Your task to perform on an android device: install app "Google News" Image 0: 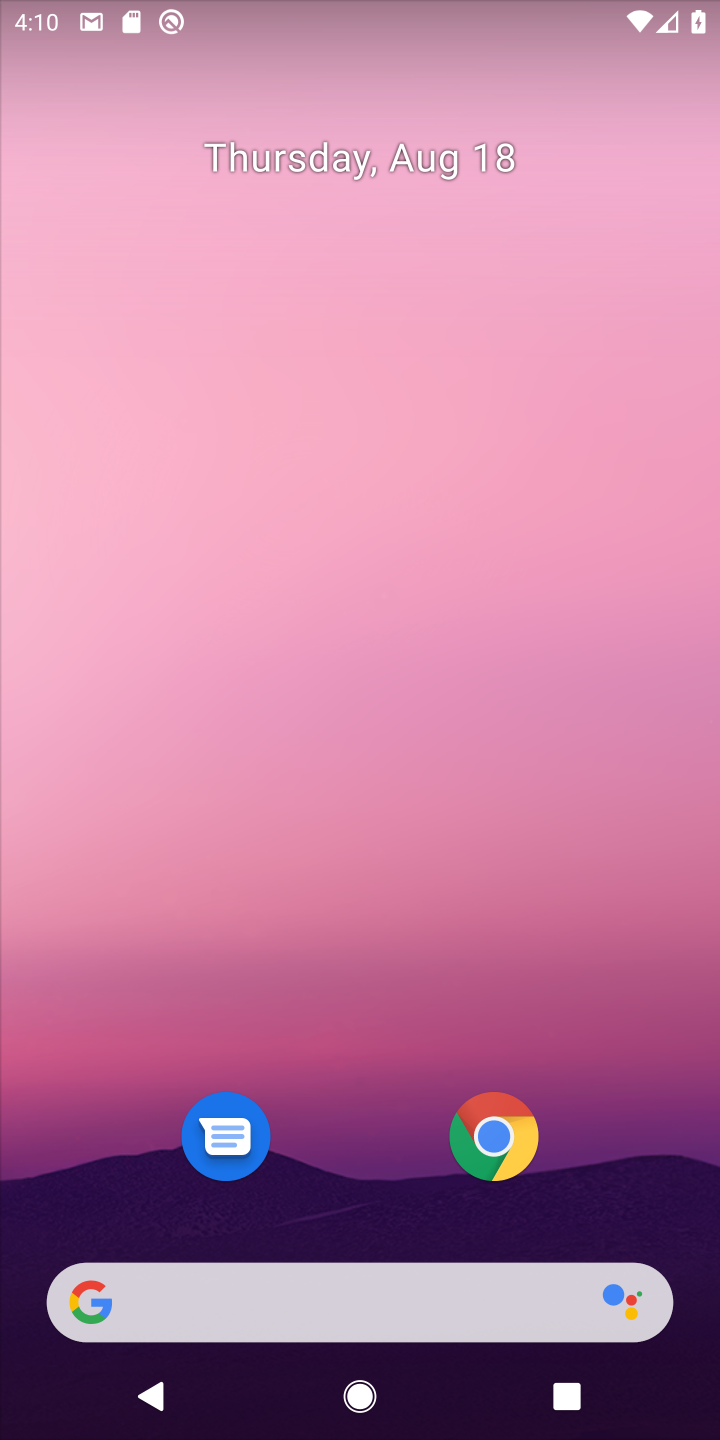
Step 0: press home button
Your task to perform on an android device: install app "Google News" Image 1: 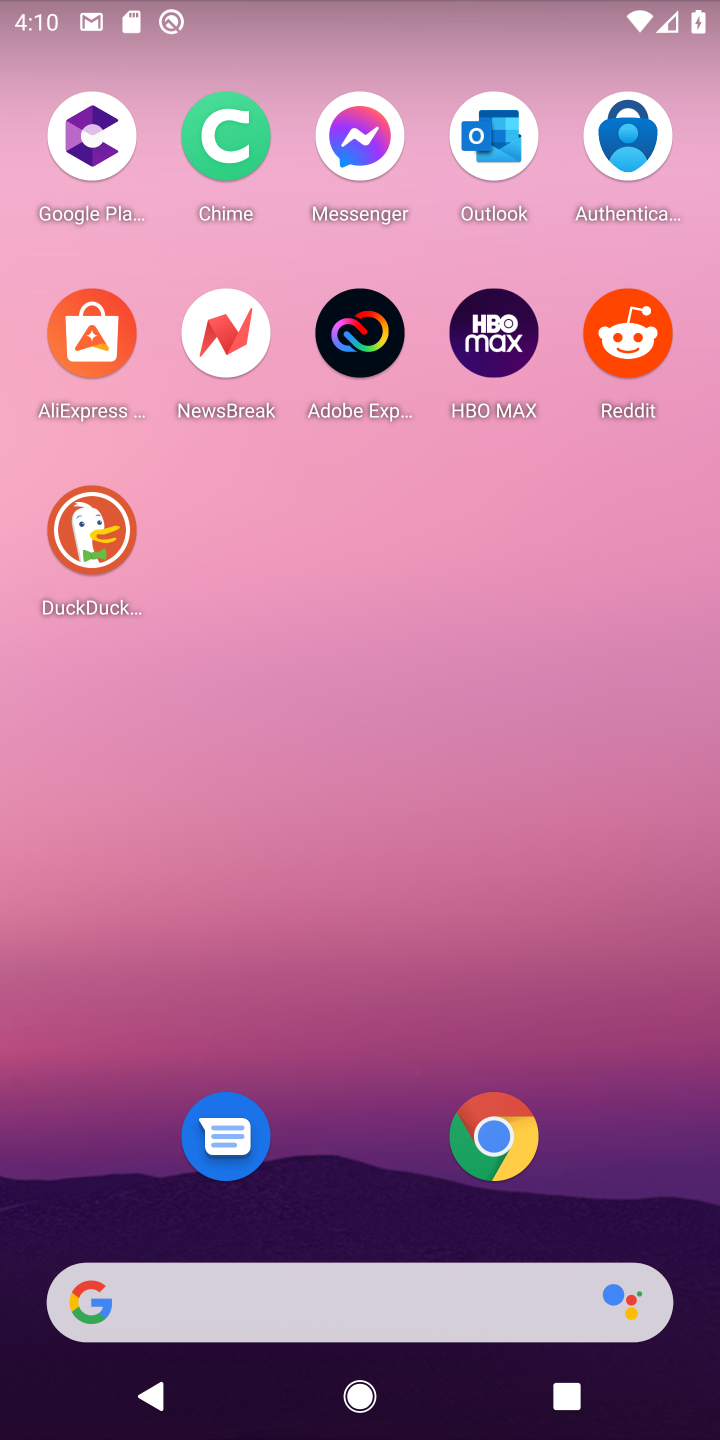
Step 1: drag from (373, 482) to (706, 45)
Your task to perform on an android device: install app "Google News" Image 2: 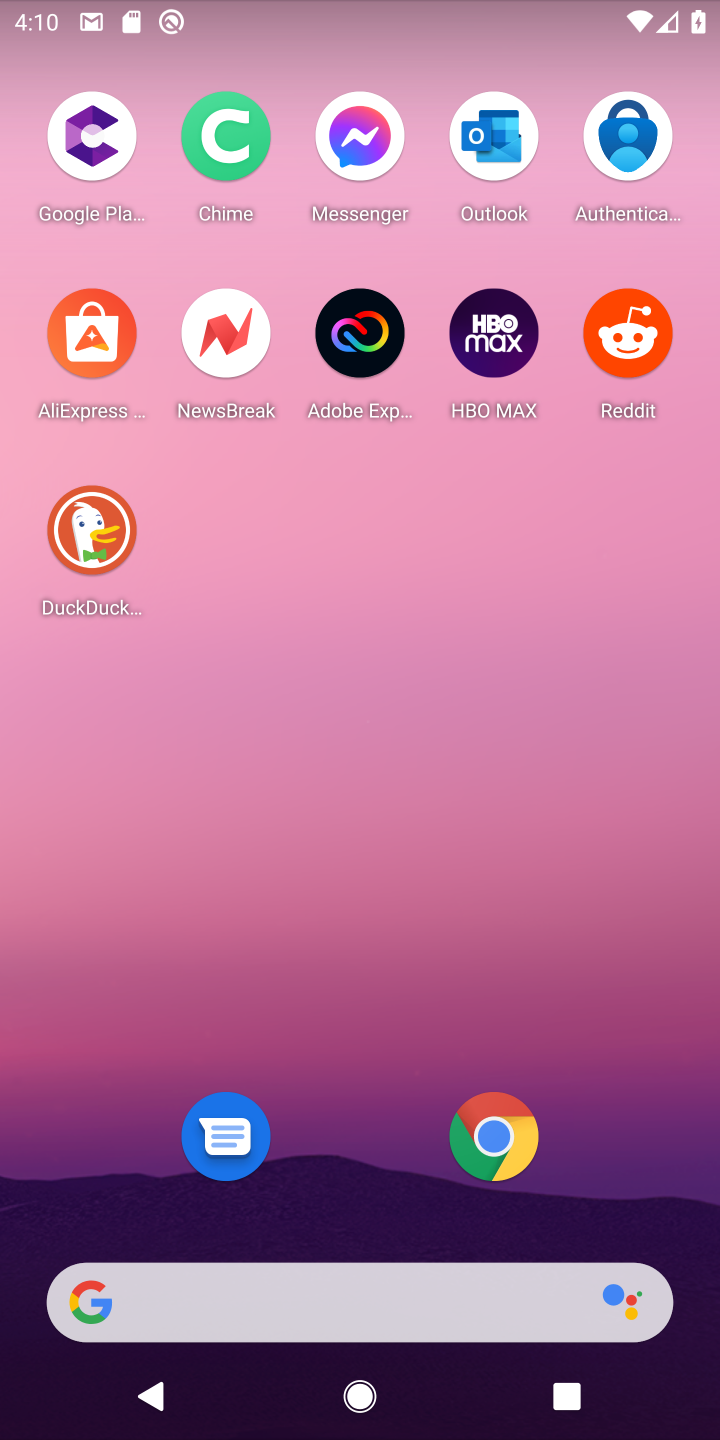
Step 2: drag from (354, 1170) to (424, 11)
Your task to perform on an android device: install app "Google News" Image 3: 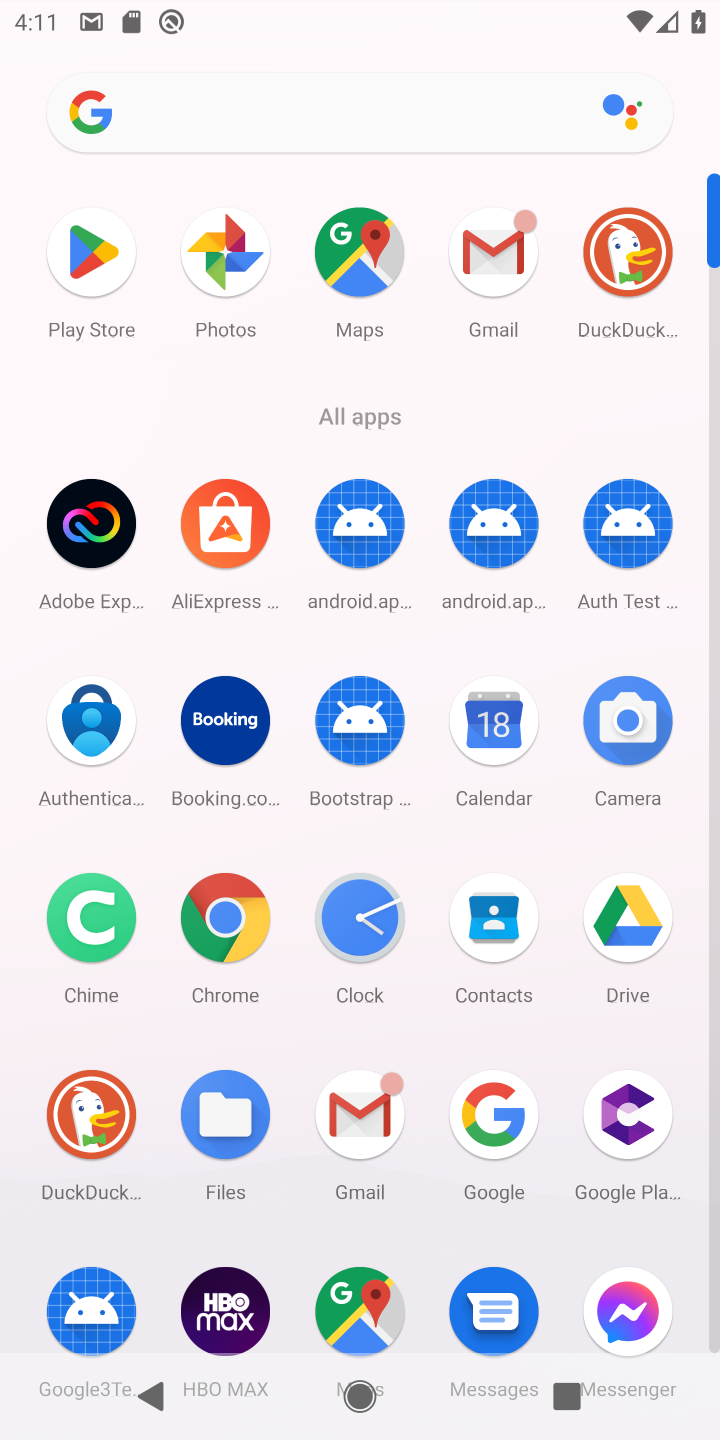
Step 3: drag from (292, 1176) to (346, 853)
Your task to perform on an android device: install app "Google News" Image 4: 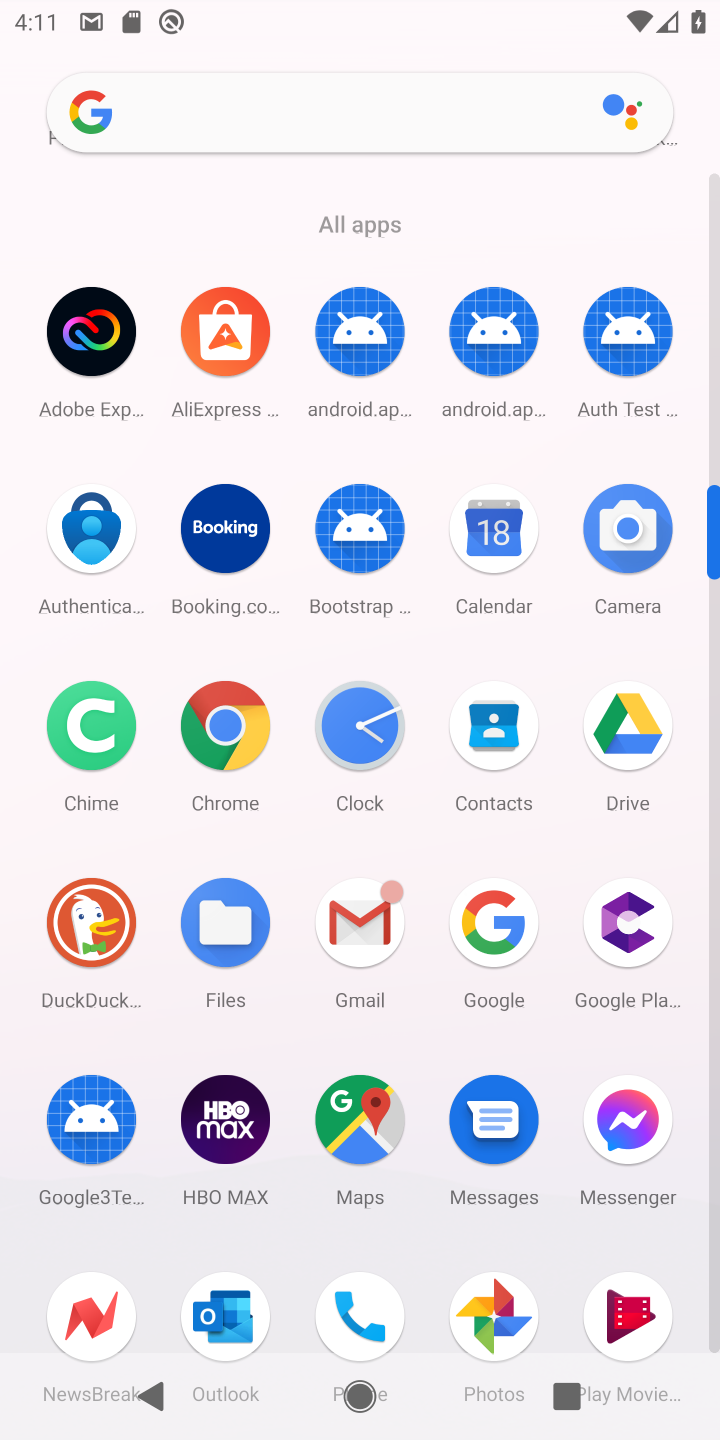
Step 4: drag from (303, 1082) to (376, 430)
Your task to perform on an android device: install app "Google News" Image 5: 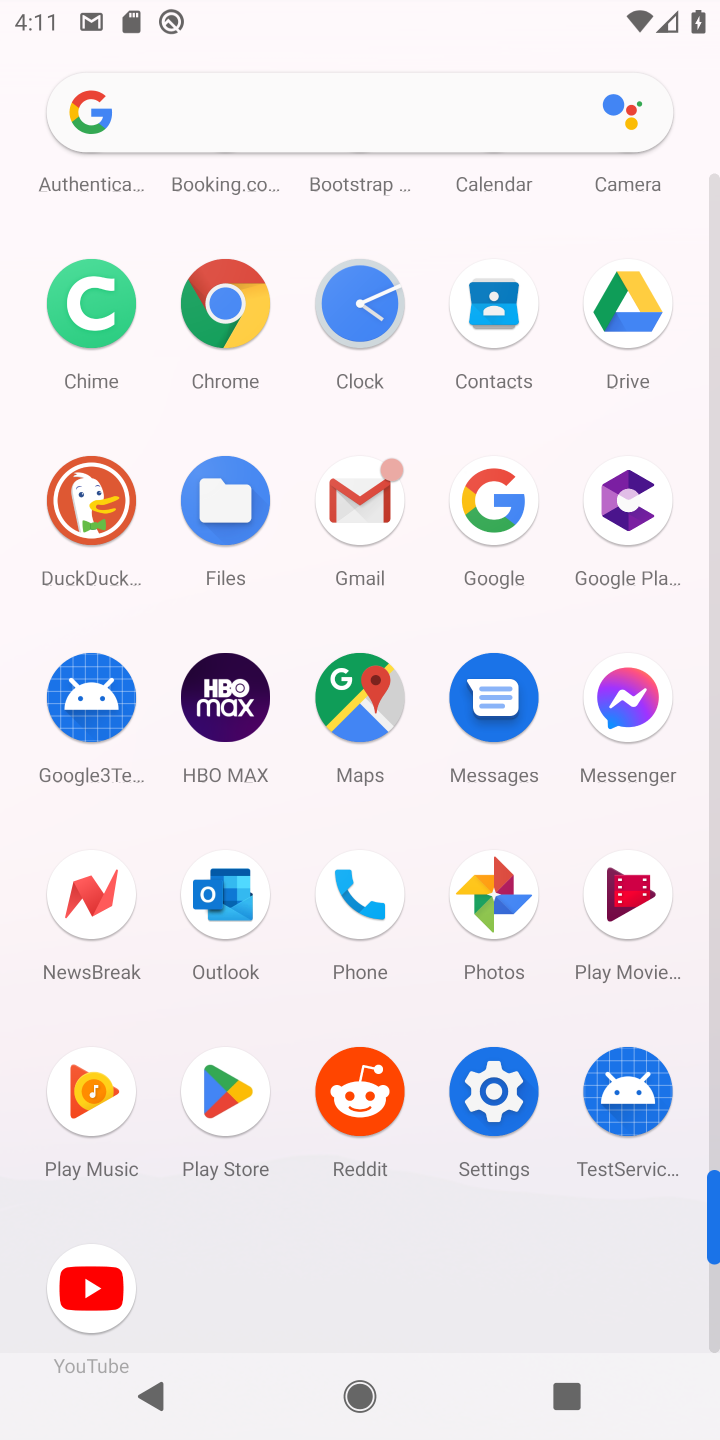
Step 5: click (220, 1100)
Your task to perform on an android device: install app "Google News" Image 6: 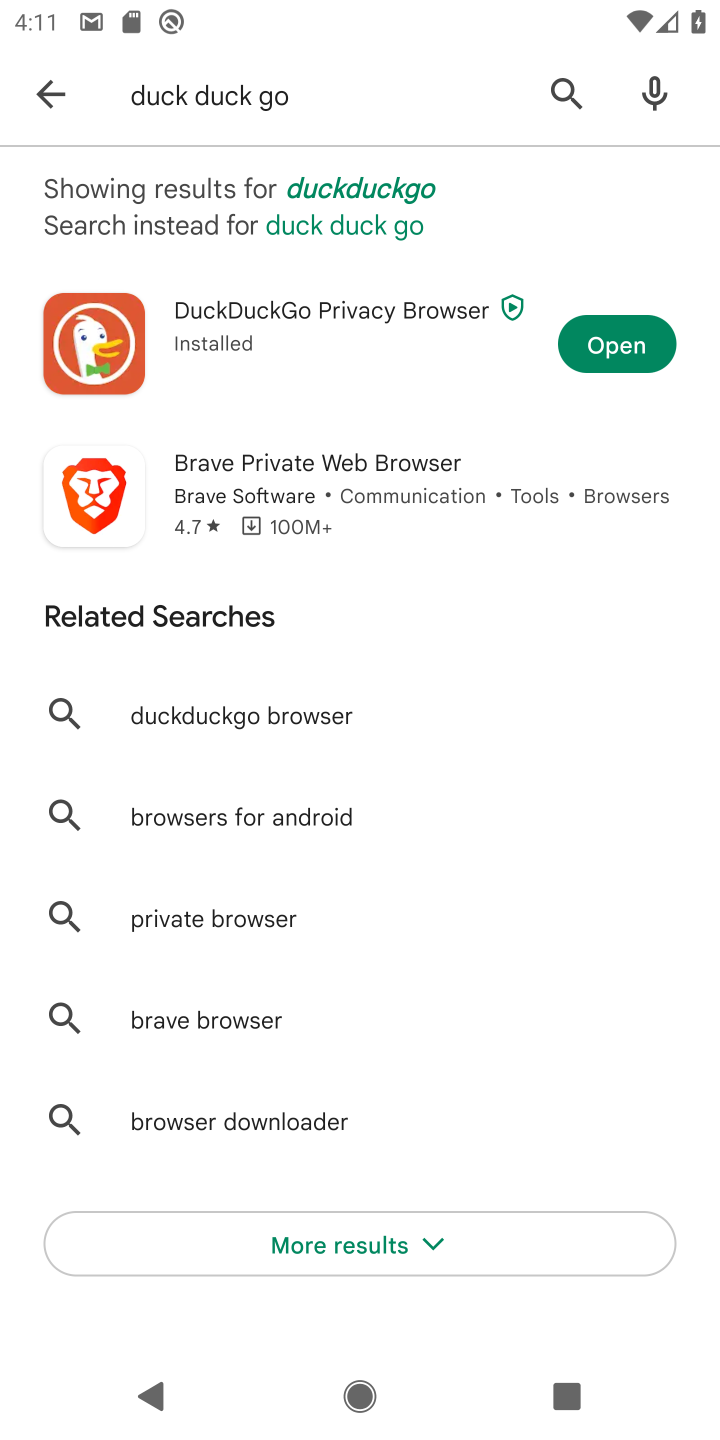
Step 6: click (206, 103)
Your task to perform on an android device: install app "Google News" Image 7: 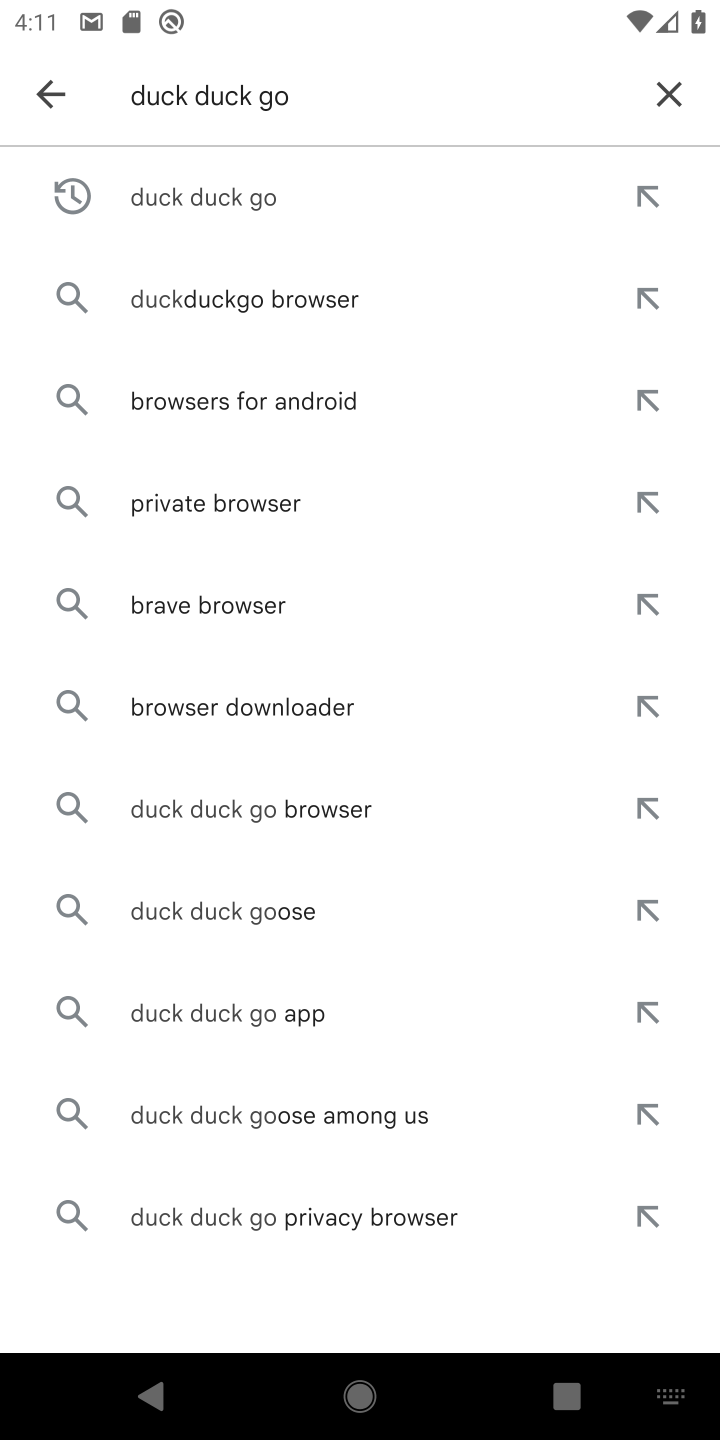
Step 7: click (649, 97)
Your task to perform on an android device: install app "Google News" Image 8: 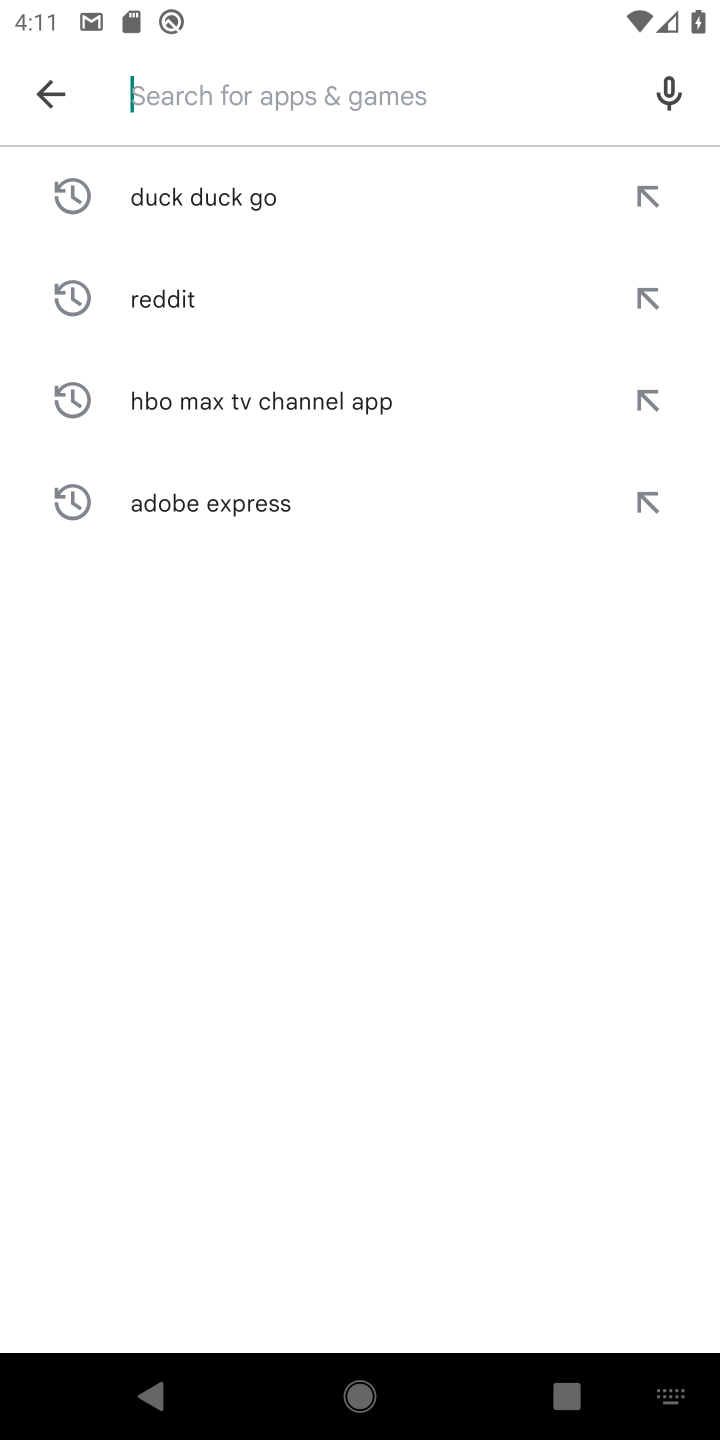
Step 8: type "google news"
Your task to perform on an android device: install app "Google News" Image 9: 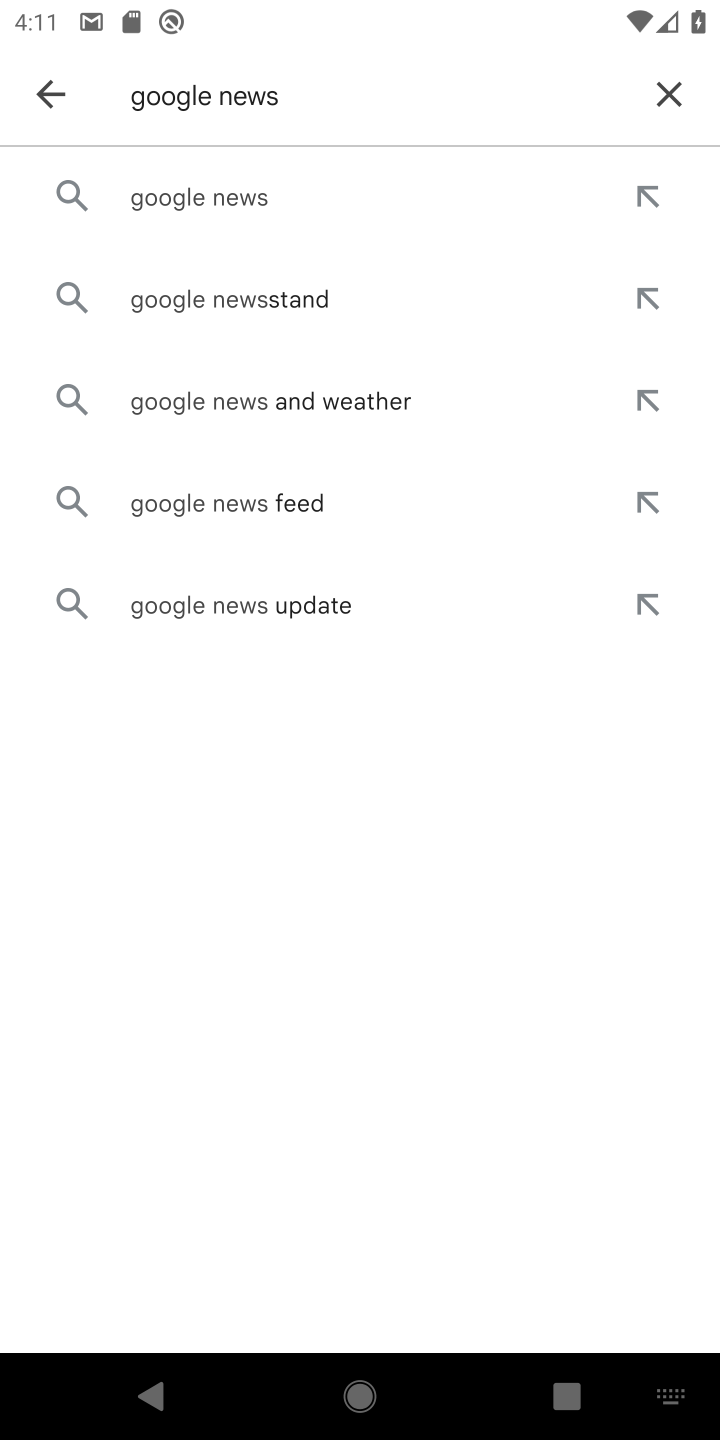
Step 9: click (222, 199)
Your task to perform on an android device: install app "Google News" Image 10: 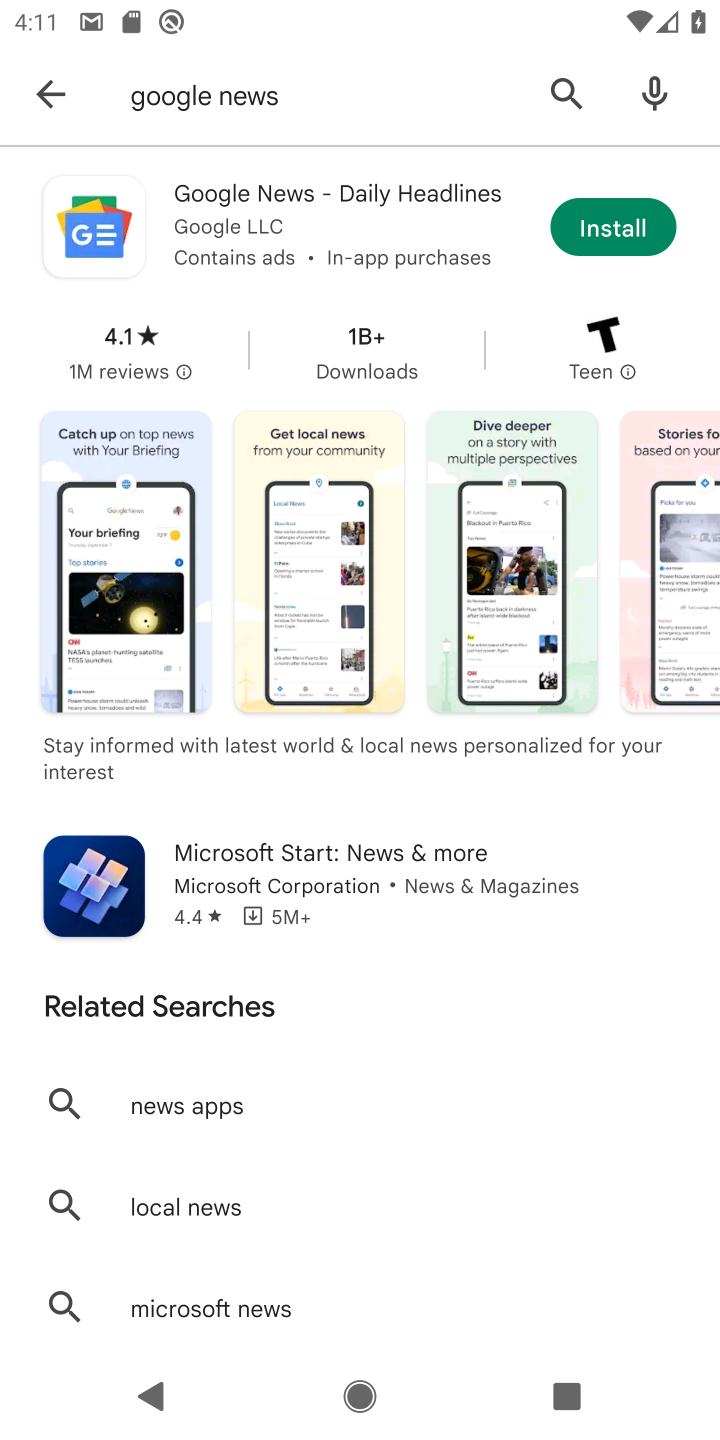
Step 10: click (563, 224)
Your task to perform on an android device: install app "Google News" Image 11: 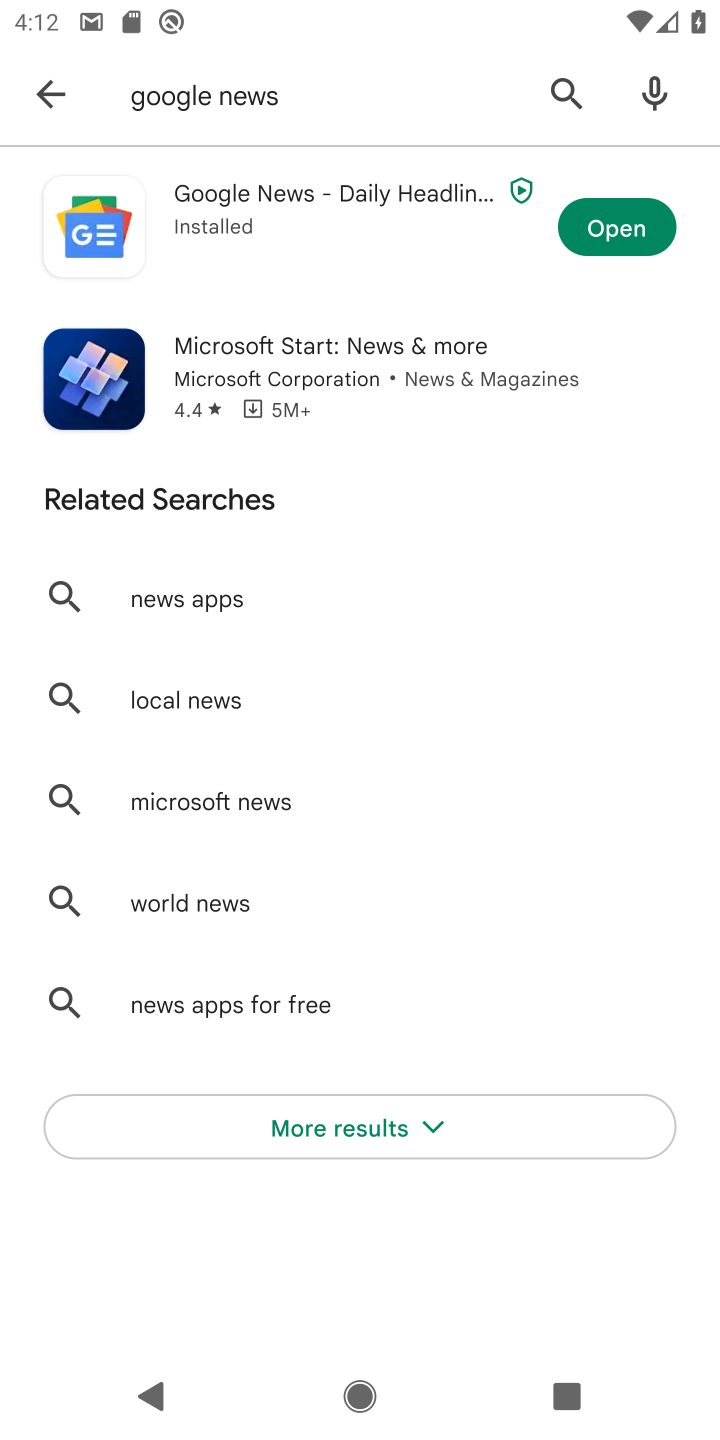
Step 11: task complete